Your task to perform on an android device: turn on location history Image 0: 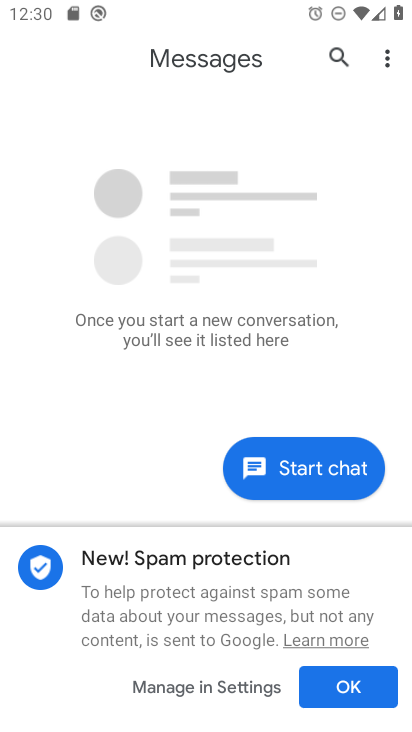
Step 0: press home button
Your task to perform on an android device: turn on location history Image 1: 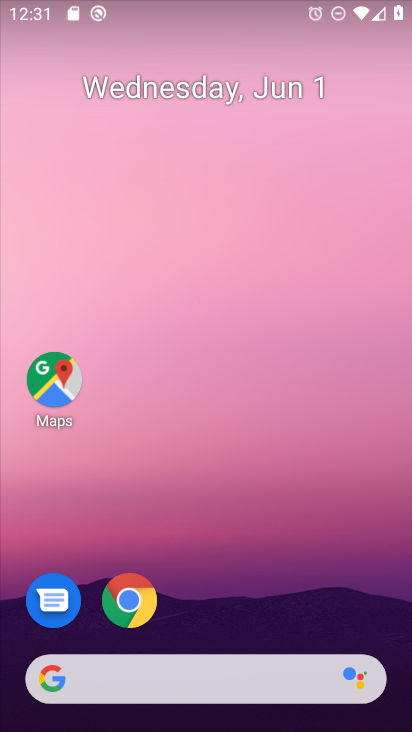
Step 1: drag from (218, 634) to (247, 26)
Your task to perform on an android device: turn on location history Image 2: 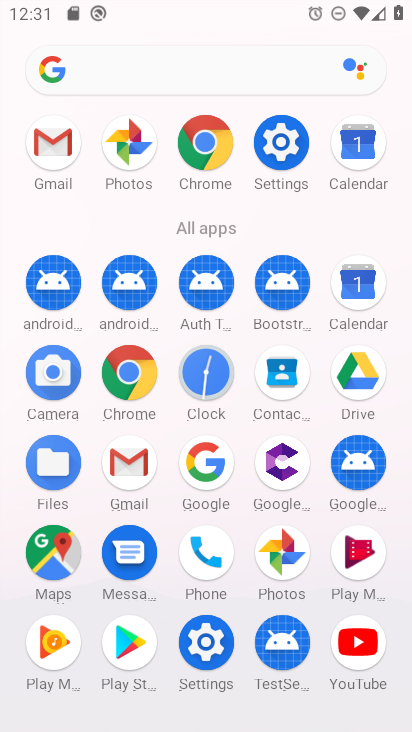
Step 2: click (276, 130)
Your task to perform on an android device: turn on location history Image 3: 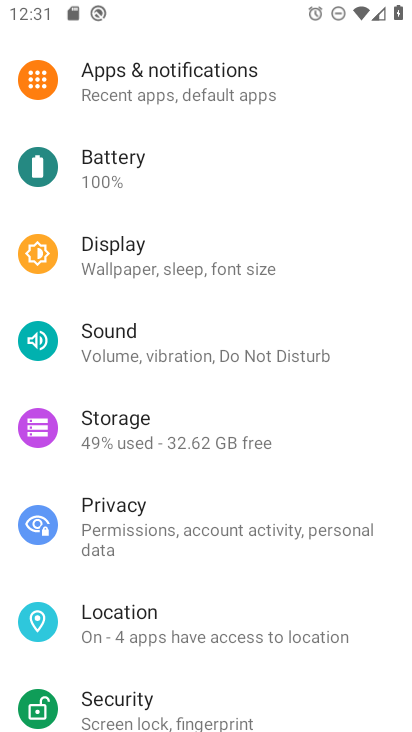
Step 3: click (164, 619)
Your task to perform on an android device: turn on location history Image 4: 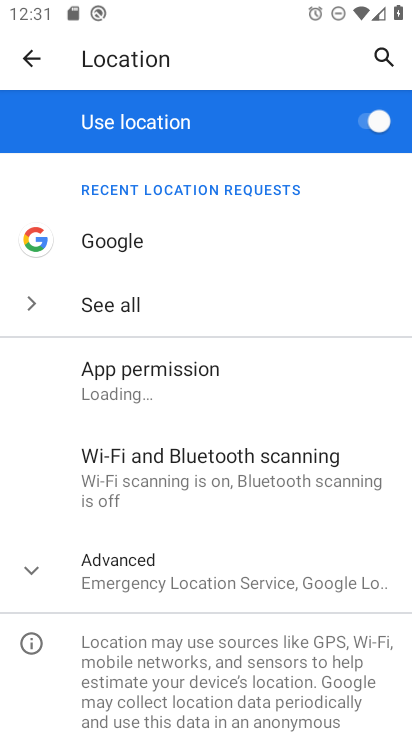
Step 4: click (36, 564)
Your task to perform on an android device: turn on location history Image 5: 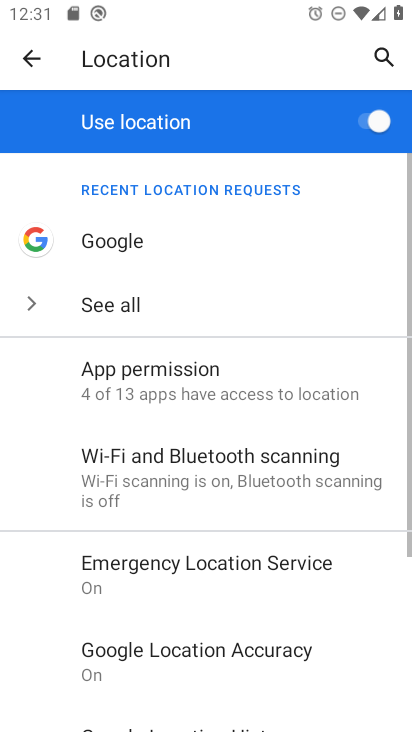
Step 5: drag from (223, 684) to (241, 268)
Your task to perform on an android device: turn on location history Image 6: 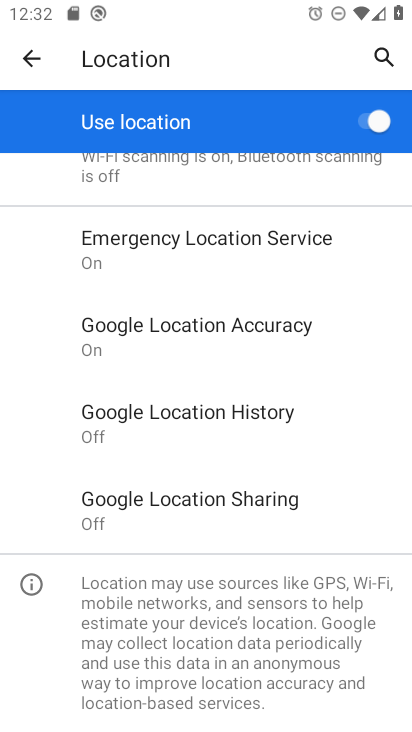
Step 6: click (181, 427)
Your task to perform on an android device: turn on location history Image 7: 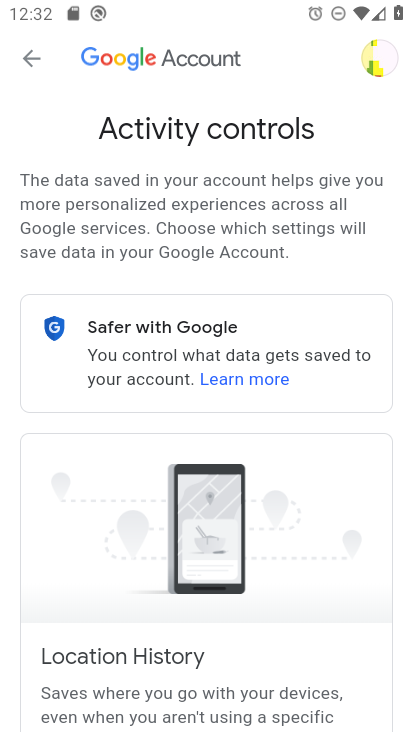
Step 7: drag from (239, 615) to (283, 114)
Your task to perform on an android device: turn on location history Image 8: 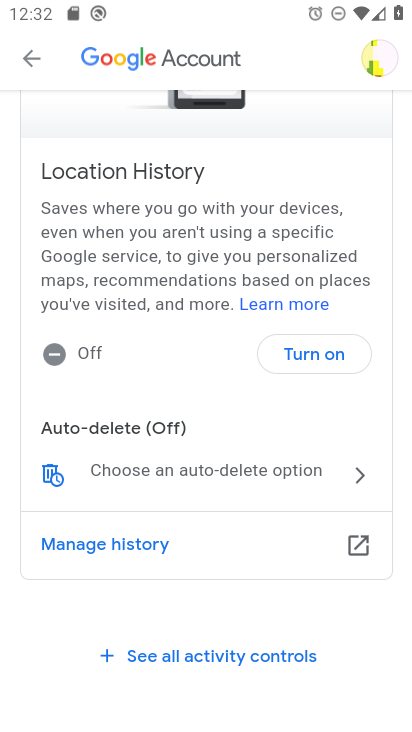
Step 8: click (323, 349)
Your task to perform on an android device: turn on location history Image 9: 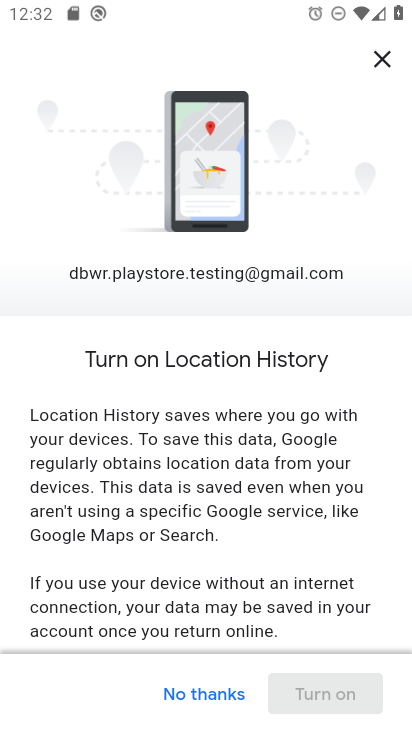
Step 9: drag from (268, 595) to (281, 131)
Your task to perform on an android device: turn on location history Image 10: 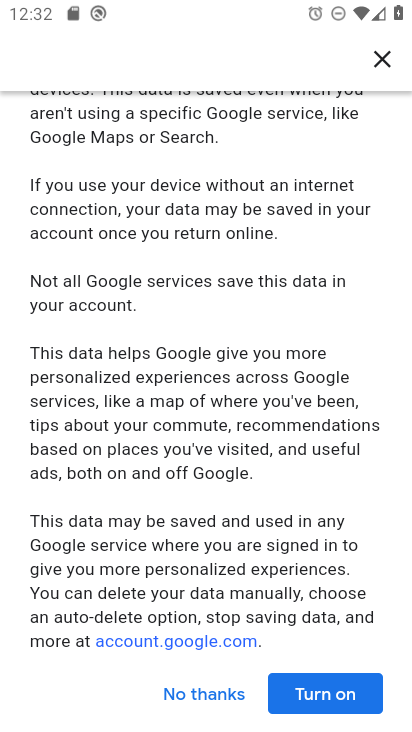
Step 10: click (320, 688)
Your task to perform on an android device: turn on location history Image 11: 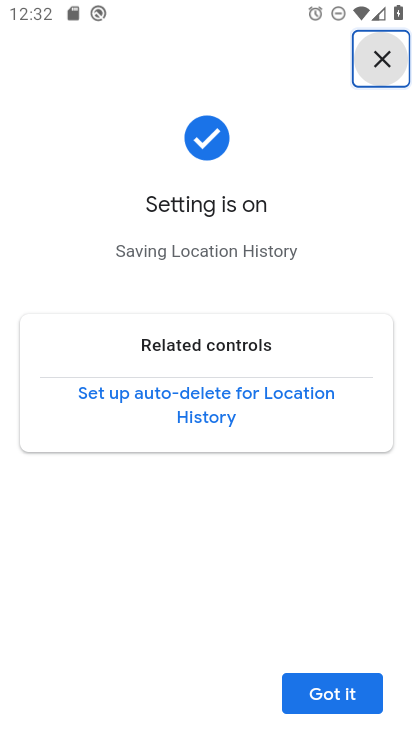
Step 11: click (325, 686)
Your task to perform on an android device: turn on location history Image 12: 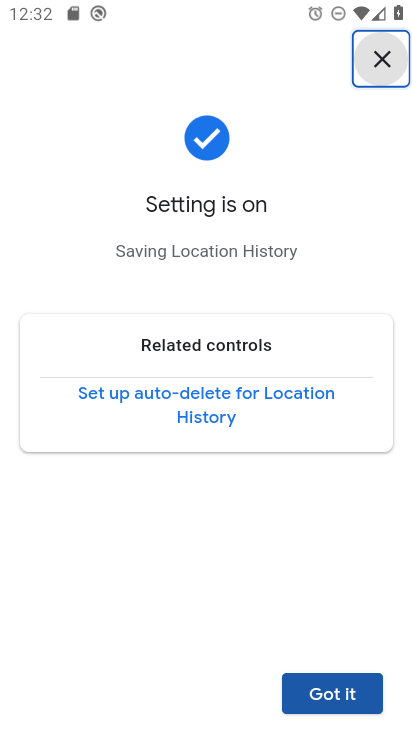
Step 12: task complete